Your task to perform on an android device: Is it going to rain this weekend? Image 0: 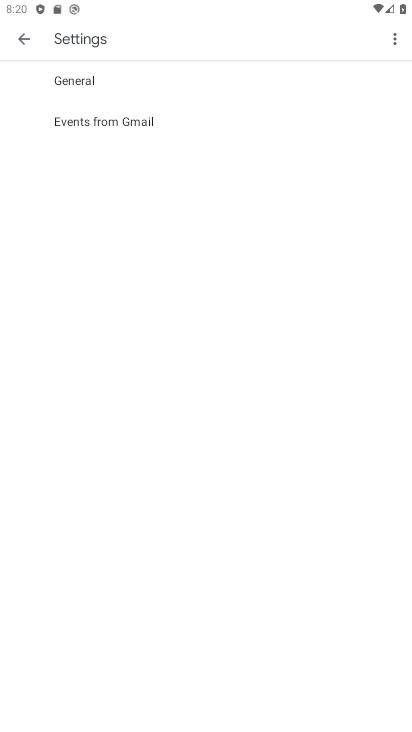
Step 0: press home button
Your task to perform on an android device: Is it going to rain this weekend? Image 1: 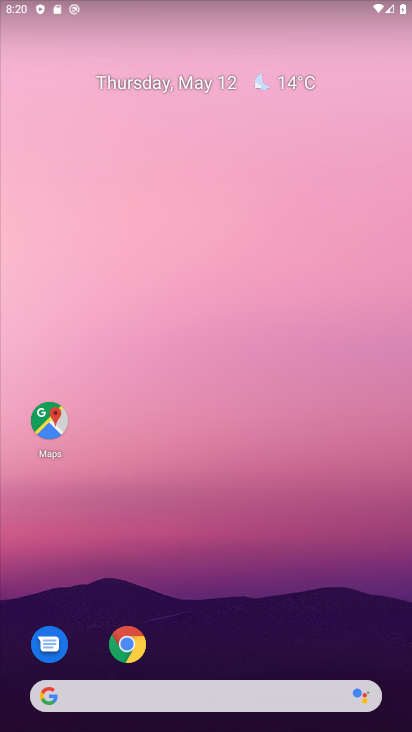
Step 1: click (292, 92)
Your task to perform on an android device: Is it going to rain this weekend? Image 2: 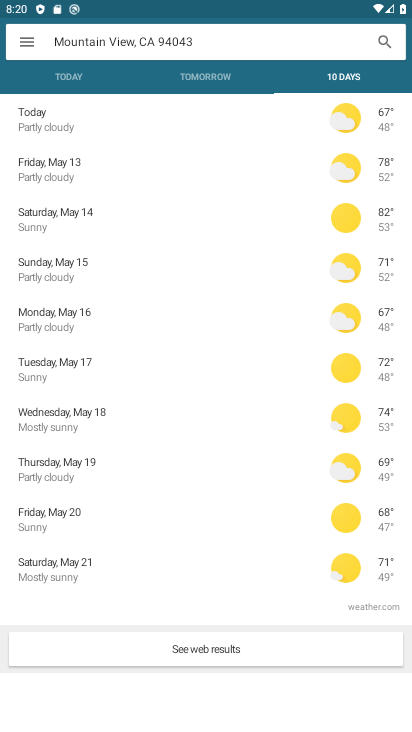
Step 2: click (27, 38)
Your task to perform on an android device: Is it going to rain this weekend? Image 3: 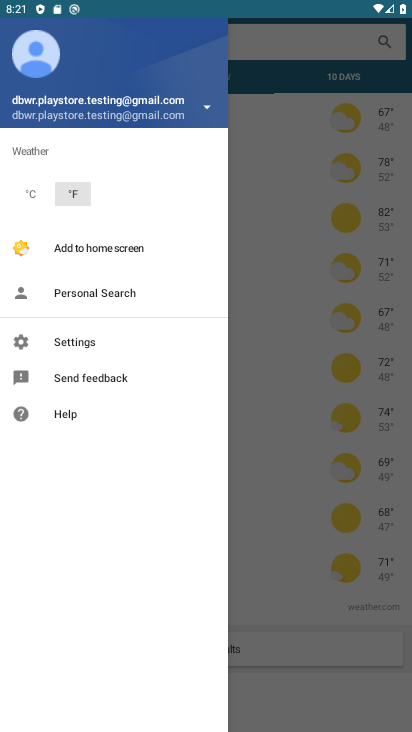
Step 3: click (278, 215)
Your task to perform on an android device: Is it going to rain this weekend? Image 4: 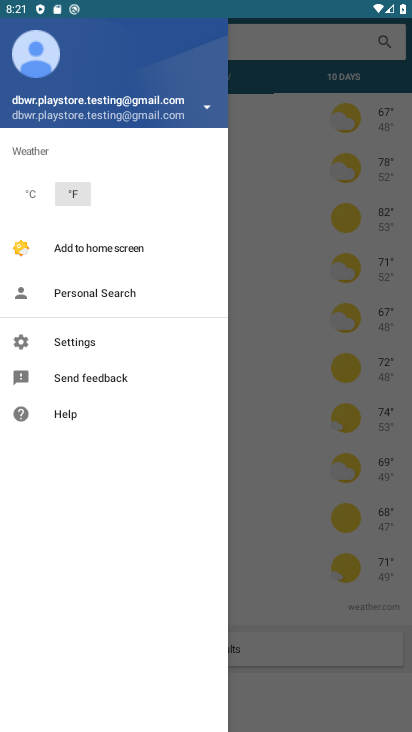
Step 4: click (291, 207)
Your task to perform on an android device: Is it going to rain this weekend? Image 5: 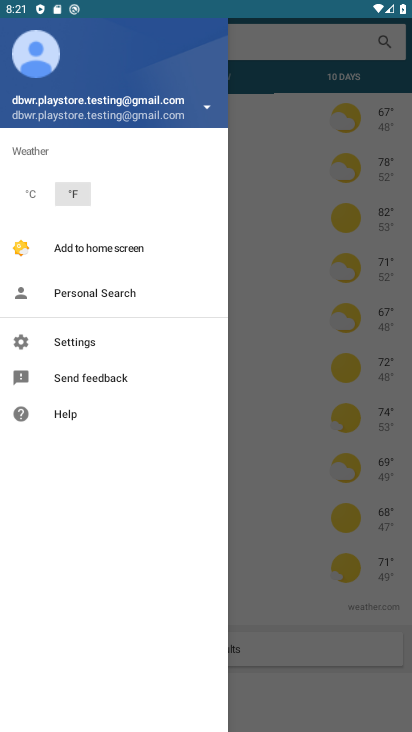
Step 5: click (295, 65)
Your task to perform on an android device: Is it going to rain this weekend? Image 6: 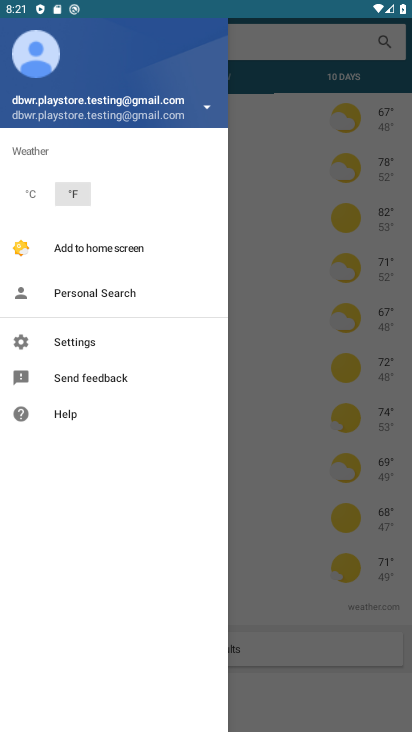
Step 6: click (278, 249)
Your task to perform on an android device: Is it going to rain this weekend? Image 7: 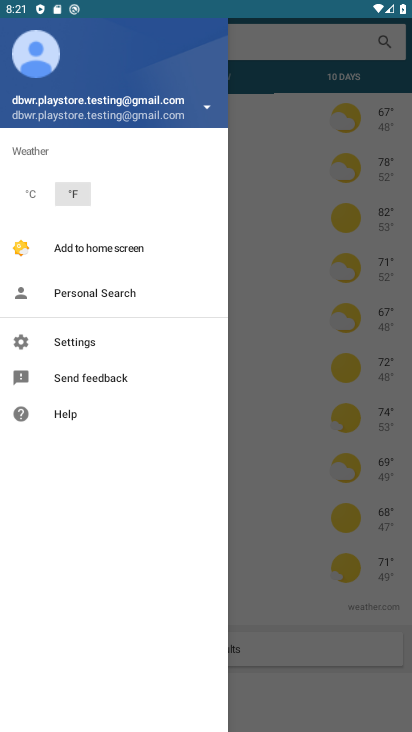
Step 7: click (314, 147)
Your task to perform on an android device: Is it going to rain this weekend? Image 8: 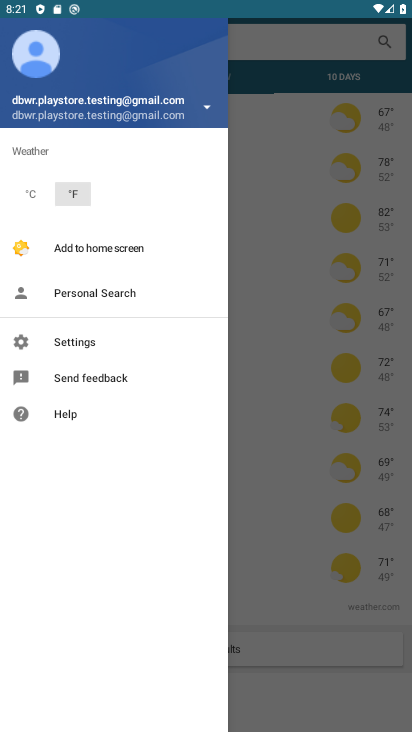
Step 8: click (369, 668)
Your task to perform on an android device: Is it going to rain this weekend? Image 9: 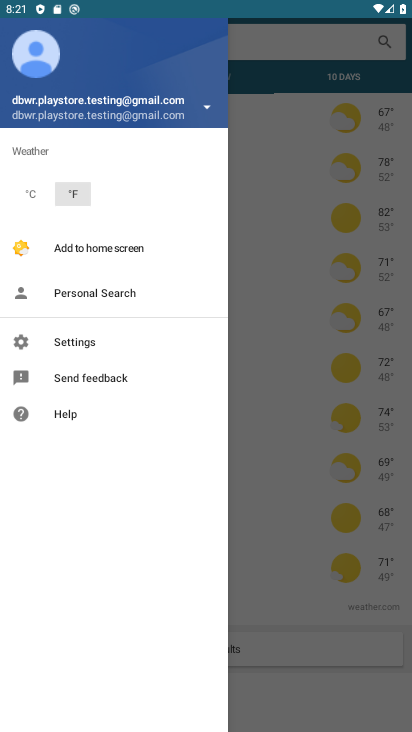
Step 9: drag from (280, 327) to (325, 286)
Your task to perform on an android device: Is it going to rain this weekend? Image 10: 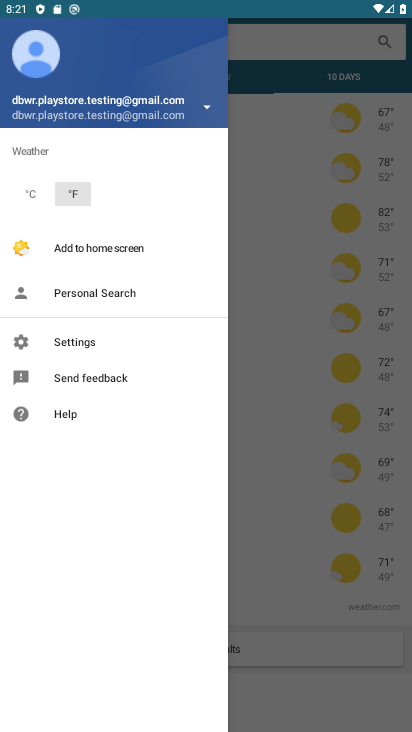
Step 10: click (209, 108)
Your task to perform on an android device: Is it going to rain this weekend? Image 11: 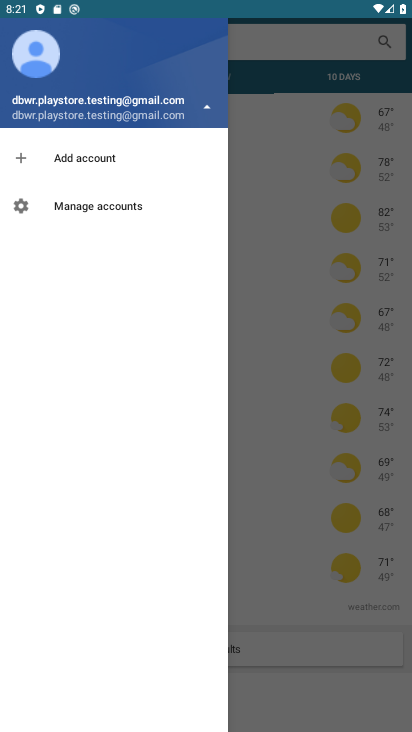
Step 11: click (209, 108)
Your task to perform on an android device: Is it going to rain this weekend? Image 12: 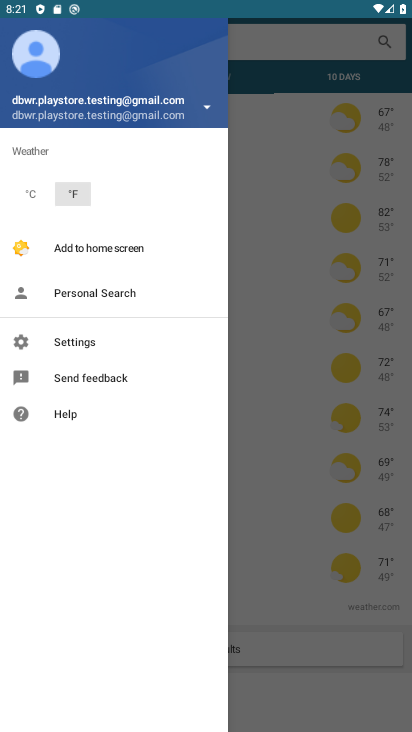
Step 12: press back button
Your task to perform on an android device: Is it going to rain this weekend? Image 13: 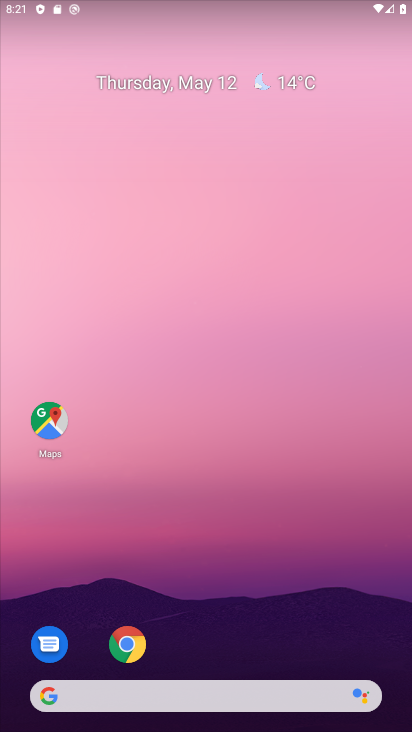
Step 13: click (295, 80)
Your task to perform on an android device: Is it going to rain this weekend? Image 14: 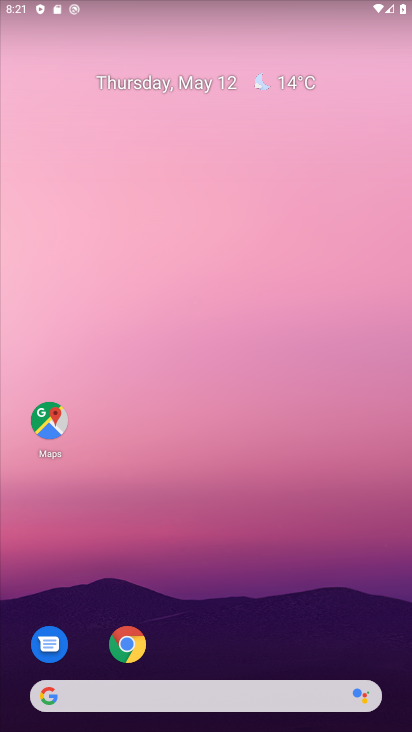
Step 14: click (289, 83)
Your task to perform on an android device: Is it going to rain this weekend? Image 15: 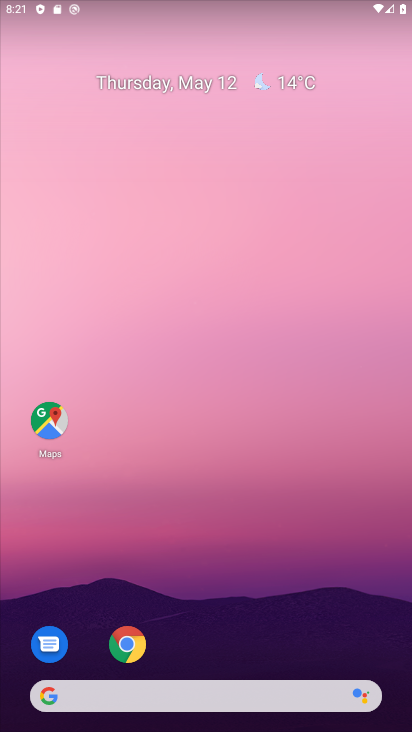
Step 15: click (300, 78)
Your task to perform on an android device: Is it going to rain this weekend? Image 16: 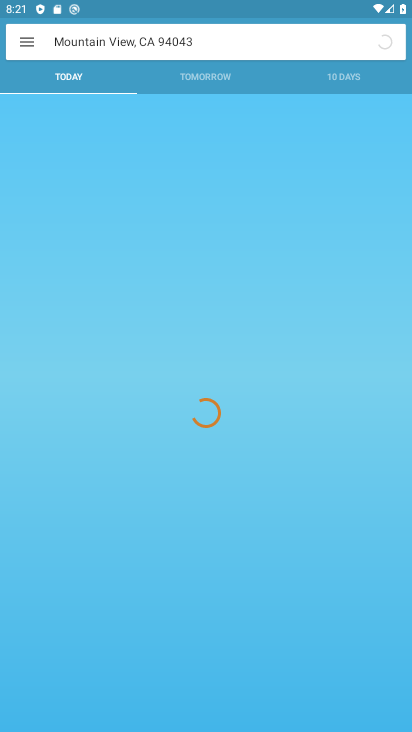
Step 16: click (338, 85)
Your task to perform on an android device: Is it going to rain this weekend? Image 17: 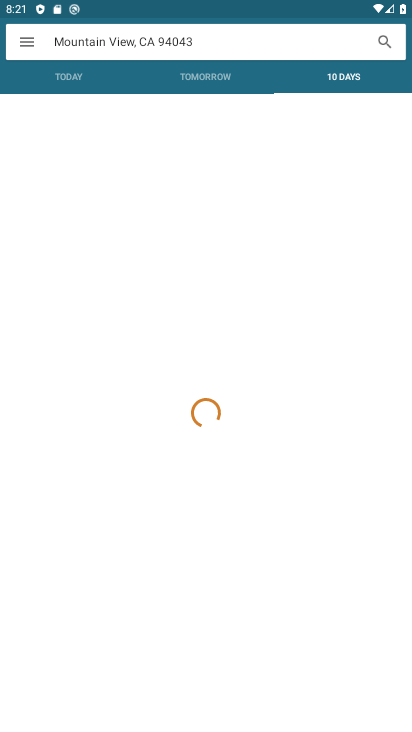
Step 17: click (336, 81)
Your task to perform on an android device: Is it going to rain this weekend? Image 18: 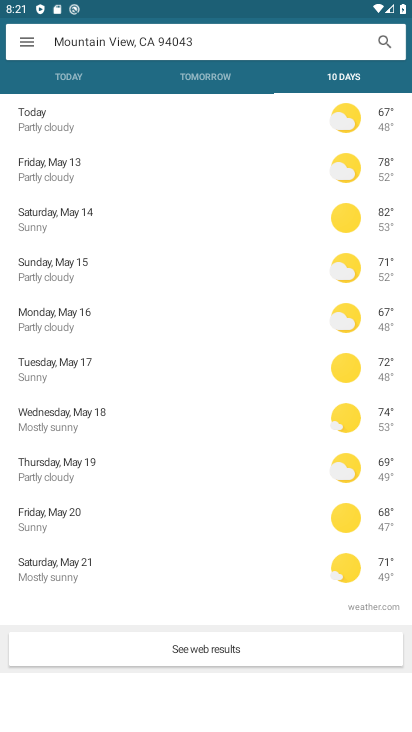
Step 18: task complete